Your task to perform on an android device: stop showing notifications on the lock screen Image 0: 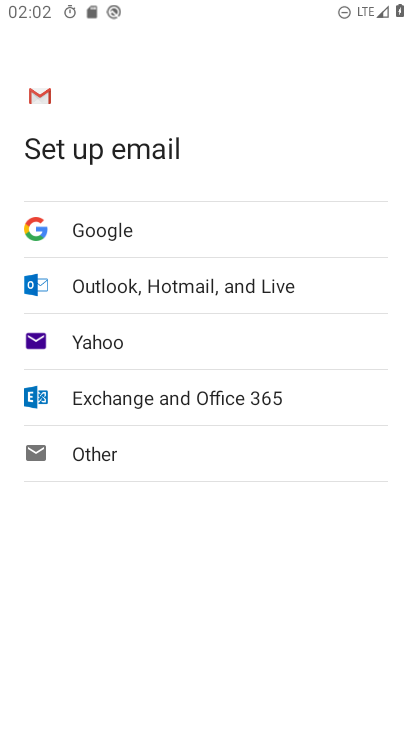
Step 0: press home button
Your task to perform on an android device: stop showing notifications on the lock screen Image 1: 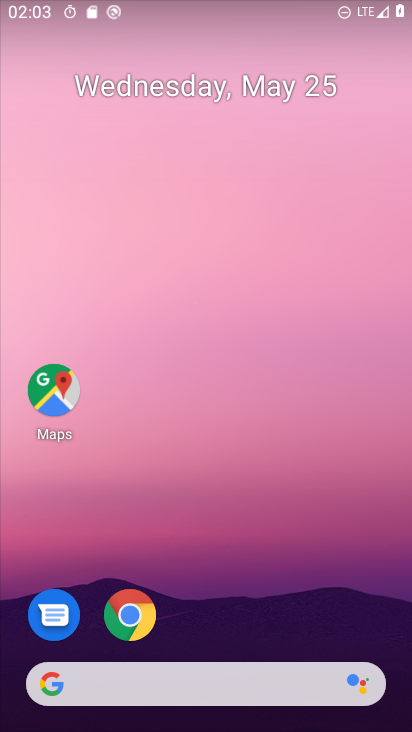
Step 1: drag from (210, 703) to (126, 202)
Your task to perform on an android device: stop showing notifications on the lock screen Image 2: 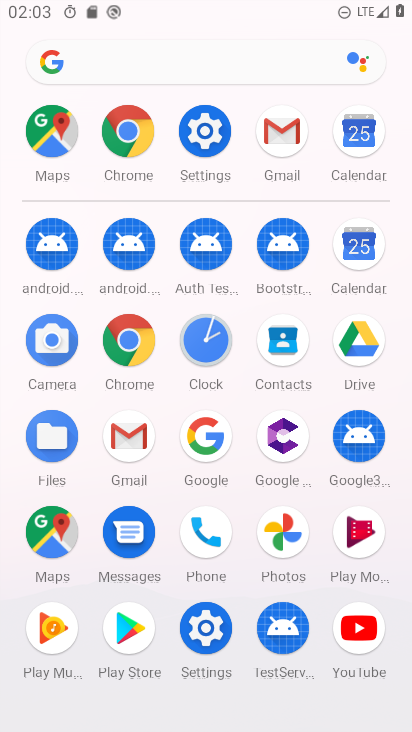
Step 2: click (226, 118)
Your task to perform on an android device: stop showing notifications on the lock screen Image 3: 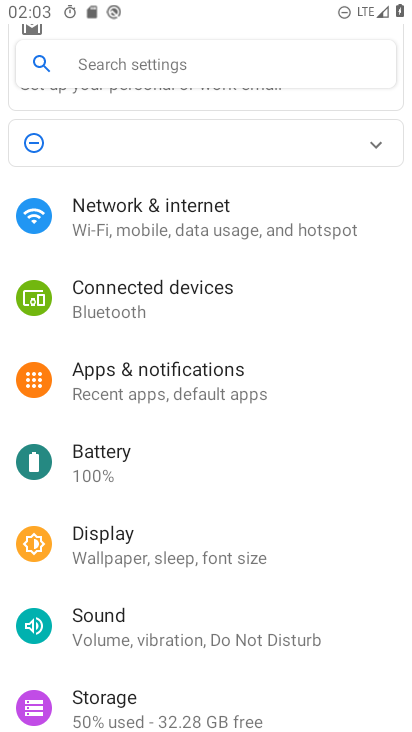
Step 3: click (183, 62)
Your task to perform on an android device: stop showing notifications on the lock screen Image 4: 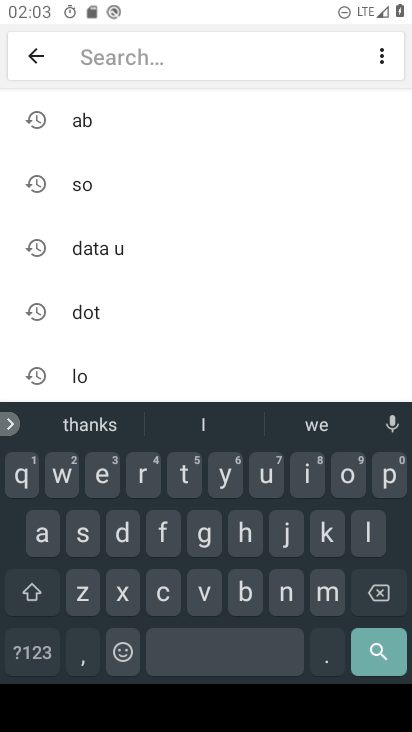
Step 4: click (287, 588)
Your task to perform on an android device: stop showing notifications on the lock screen Image 5: 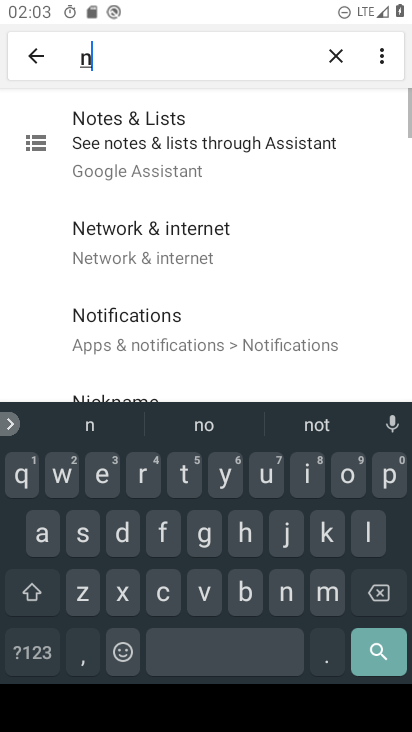
Step 5: click (352, 486)
Your task to perform on an android device: stop showing notifications on the lock screen Image 6: 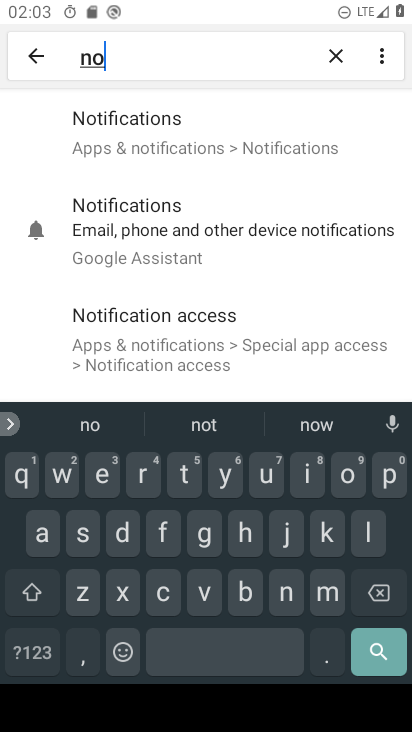
Step 6: click (77, 136)
Your task to perform on an android device: stop showing notifications on the lock screen Image 7: 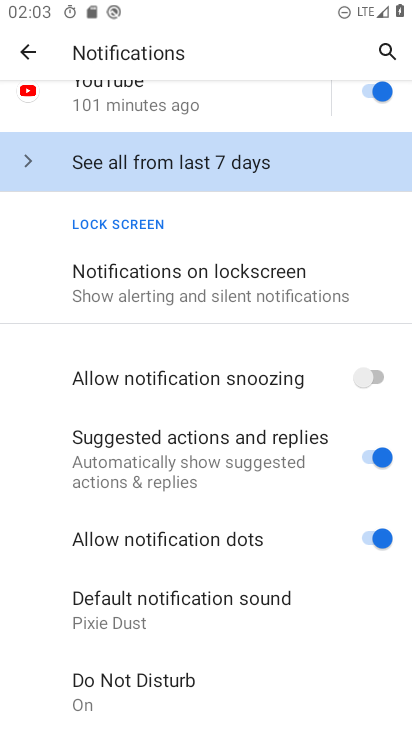
Step 7: click (127, 282)
Your task to perform on an android device: stop showing notifications on the lock screen Image 8: 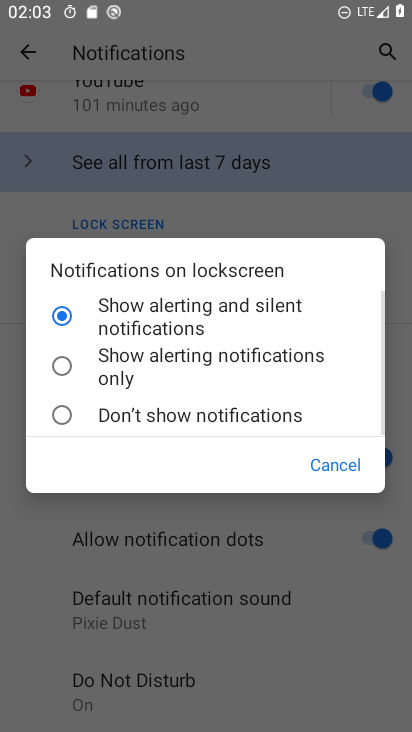
Step 8: click (171, 407)
Your task to perform on an android device: stop showing notifications on the lock screen Image 9: 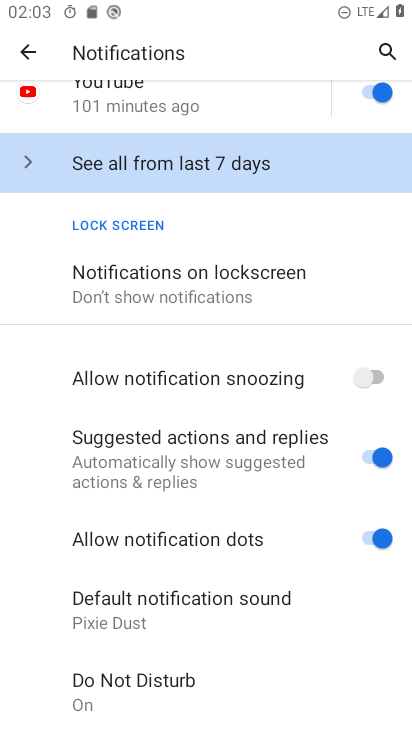
Step 9: task complete